Your task to perform on an android device: What's the weather going to be tomorrow? Image 0: 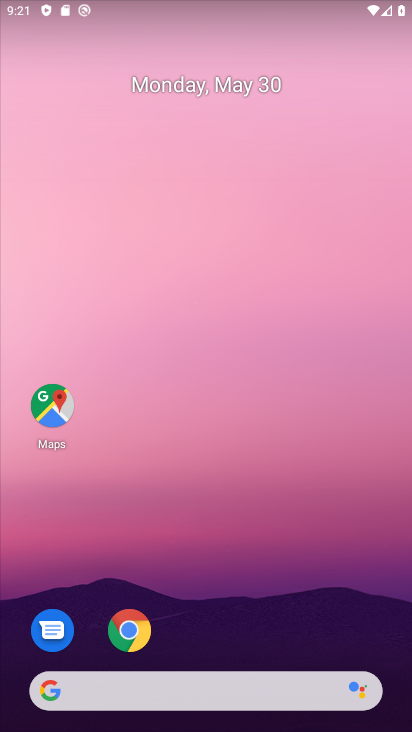
Step 0: click (240, 682)
Your task to perform on an android device: What's the weather going to be tomorrow? Image 1: 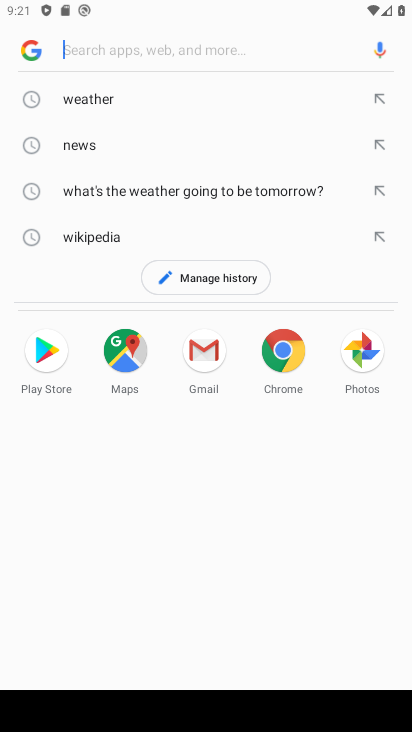
Step 1: click (139, 102)
Your task to perform on an android device: What's the weather going to be tomorrow? Image 2: 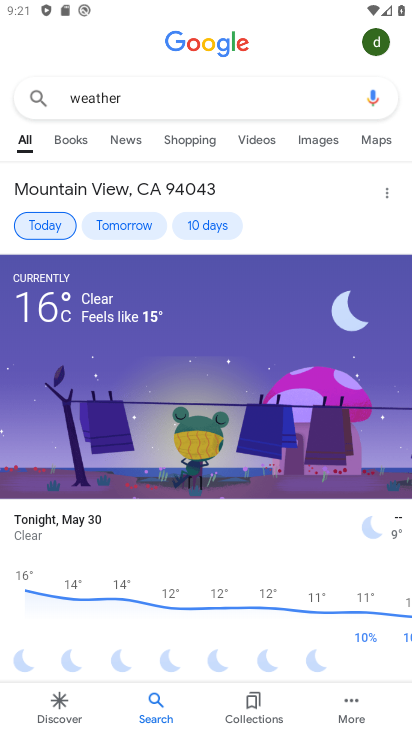
Step 2: click (137, 237)
Your task to perform on an android device: What's the weather going to be tomorrow? Image 3: 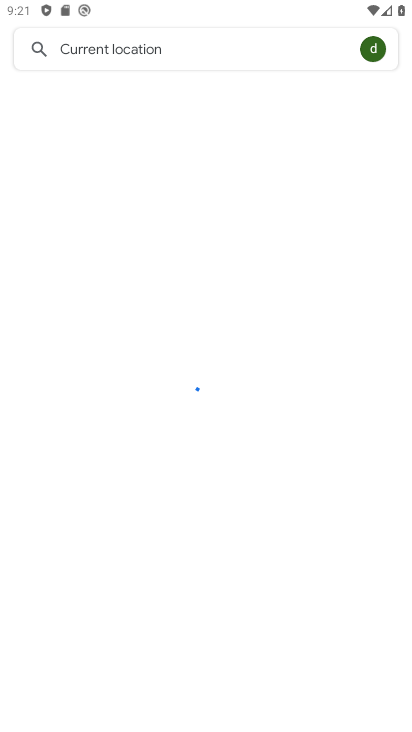
Step 3: task complete